Your task to perform on an android device: Search for "dell xps" on amazon, select the first entry, and add it to the cart. Image 0: 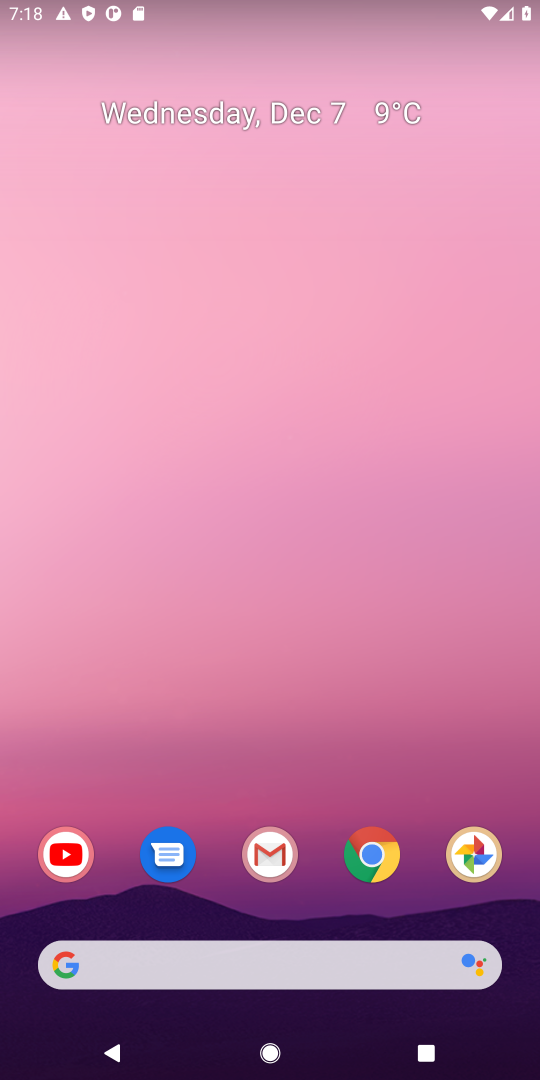
Step 0: click (357, 960)
Your task to perform on an android device: Search for "dell xps" on amazon, select the first entry, and add it to the cart. Image 1: 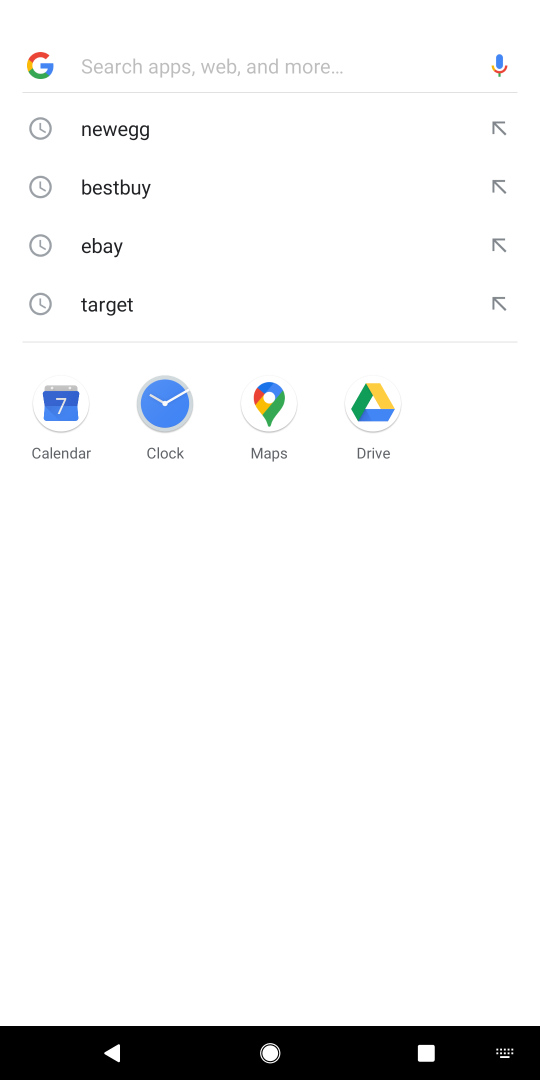
Step 1: type "amazon"
Your task to perform on an android device: Search for "dell xps" on amazon, select the first entry, and add it to the cart. Image 2: 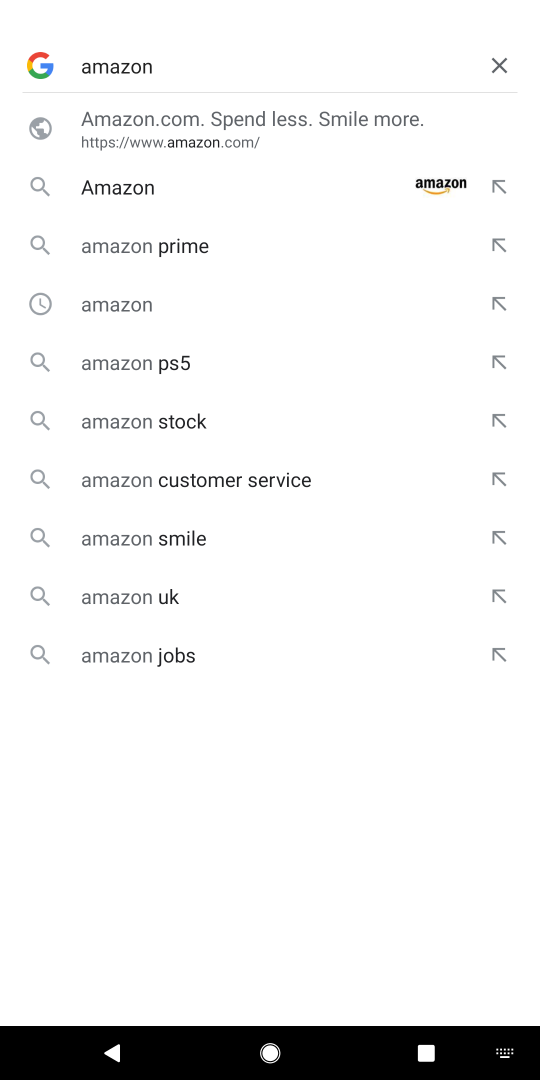
Step 2: click (91, 120)
Your task to perform on an android device: Search for "dell xps" on amazon, select the first entry, and add it to the cart. Image 3: 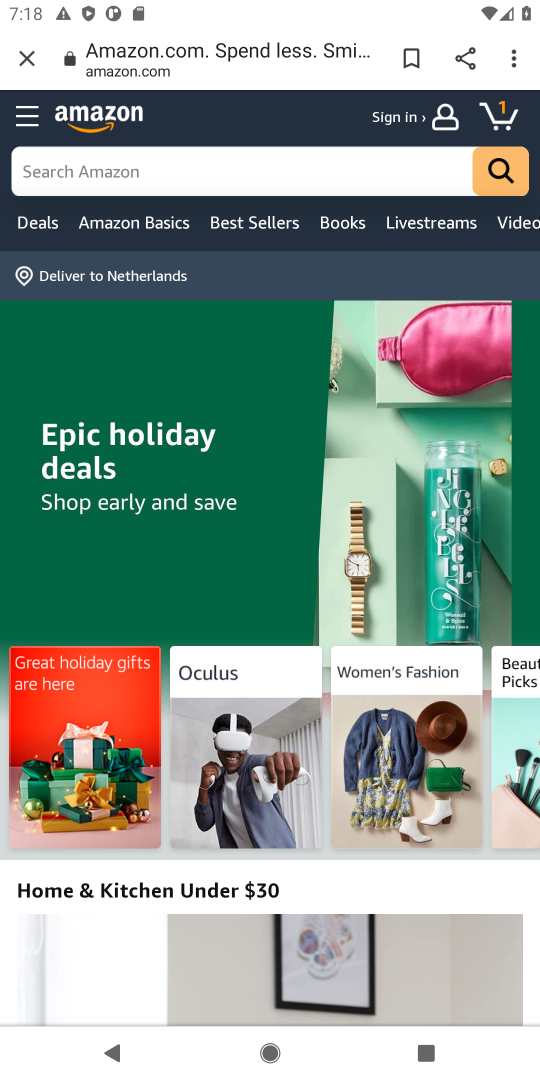
Step 3: click (158, 172)
Your task to perform on an android device: Search for "dell xps" on amazon, select the first entry, and add it to the cart. Image 4: 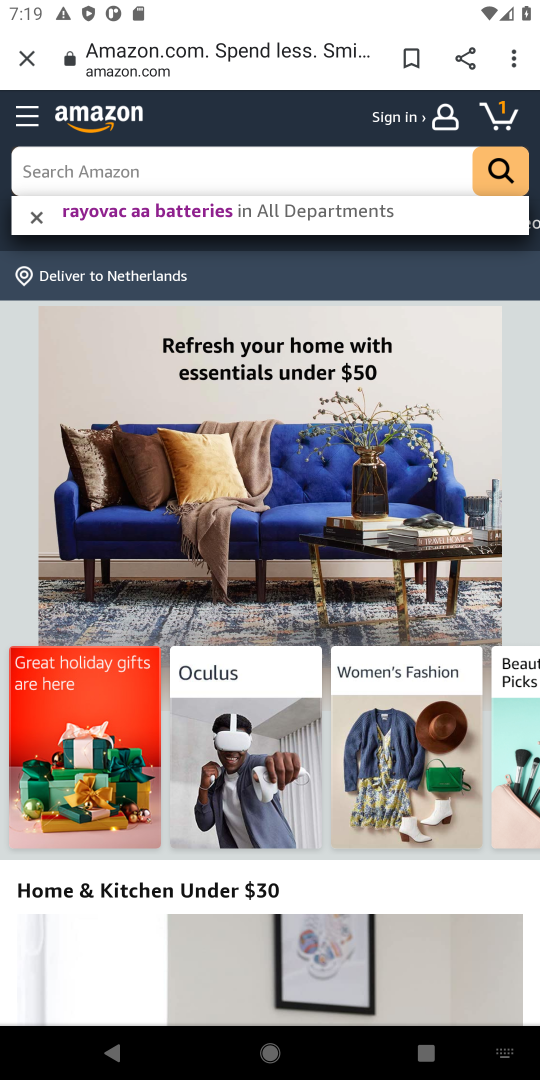
Step 4: type "dell xps"
Your task to perform on an android device: Search for "dell xps" on amazon, select the first entry, and add it to the cart. Image 5: 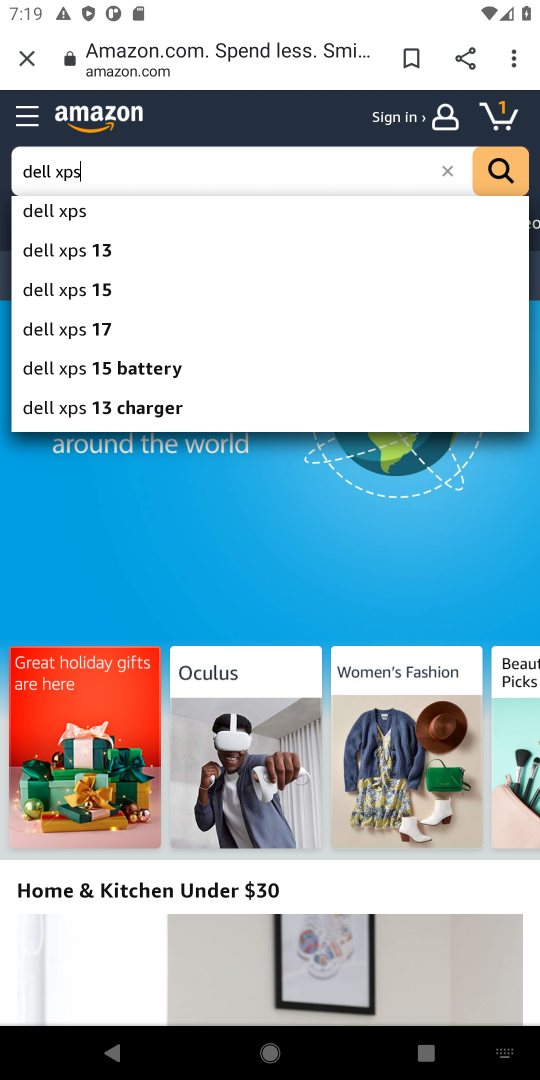
Step 5: click (502, 180)
Your task to perform on an android device: Search for "dell xps" on amazon, select the first entry, and add it to the cart. Image 6: 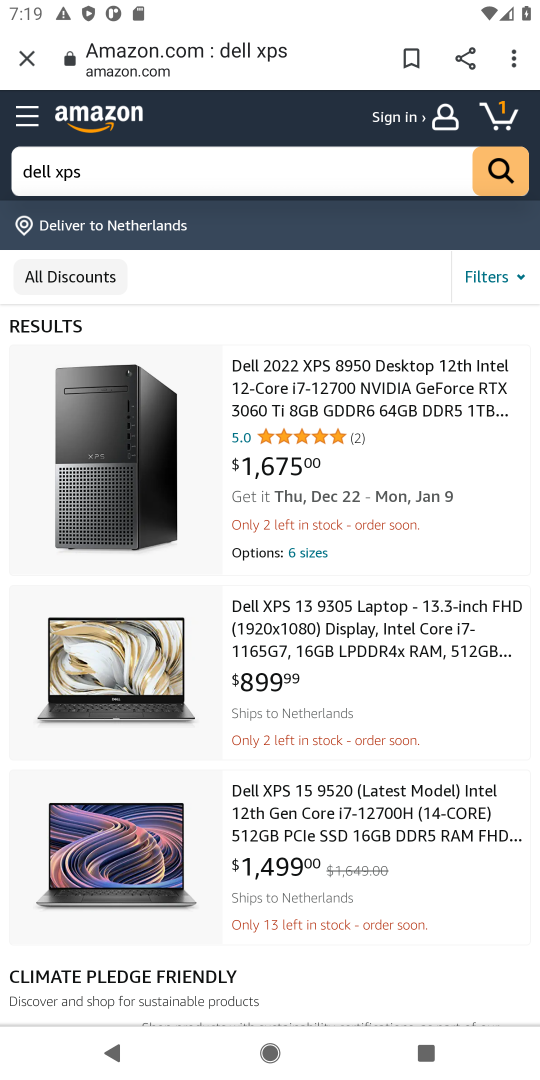
Step 6: click (264, 363)
Your task to perform on an android device: Search for "dell xps" on amazon, select the first entry, and add it to the cart. Image 7: 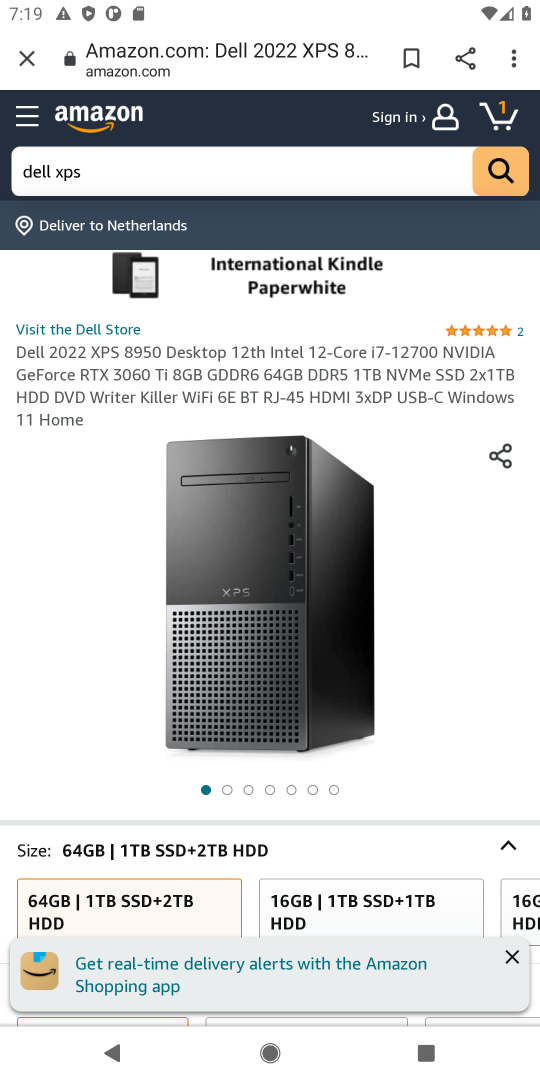
Step 7: drag from (362, 675) to (242, 155)
Your task to perform on an android device: Search for "dell xps" on amazon, select the first entry, and add it to the cart. Image 8: 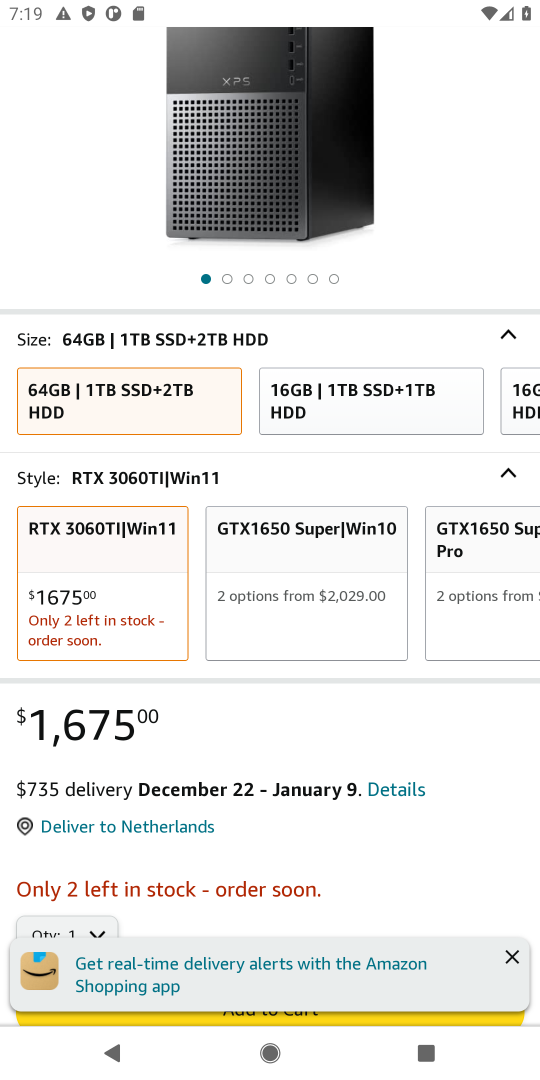
Step 8: drag from (384, 848) to (275, 325)
Your task to perform on an android device: Search for "dell xps" on amazon, select the first entry, and add it to the cart. Image 9: 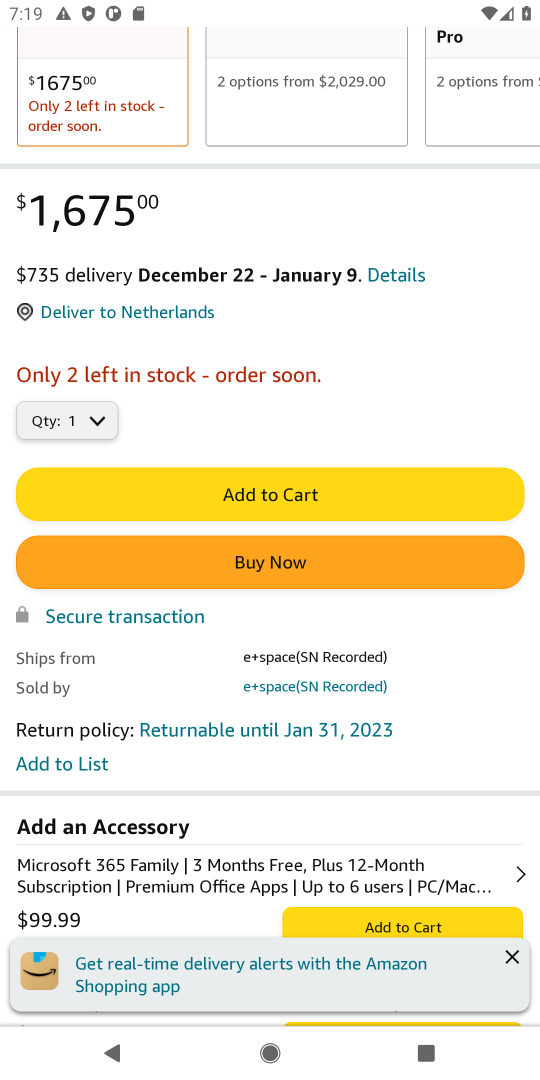
Step 9: click (344, 506)
Your task to perform on an android device: Search for "dell xps" on amazon, select the first entry, and add it to the cart. Image 10: 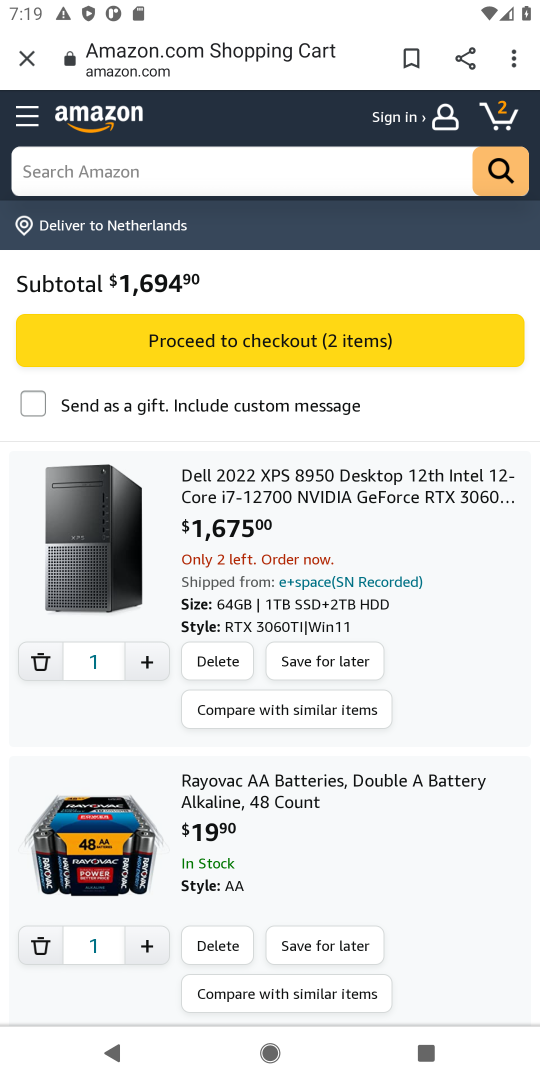
Step 10: task complete